Your task to perform on an android device: set default search engine in the chrome app Image 0: 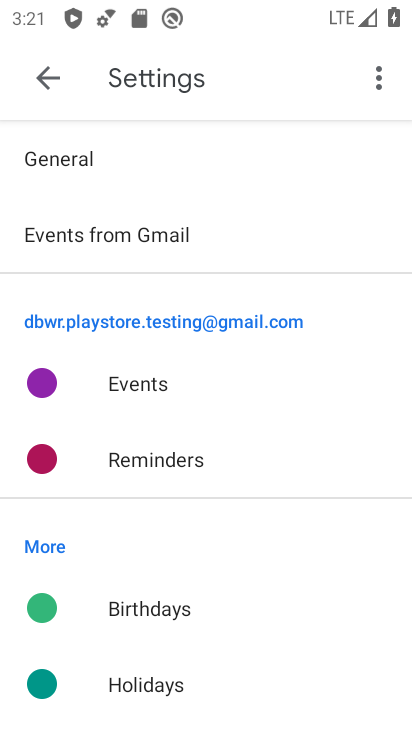
Step 0: press back button
Your task to perform on an android device: set default search engine in the chrome app Image 1: 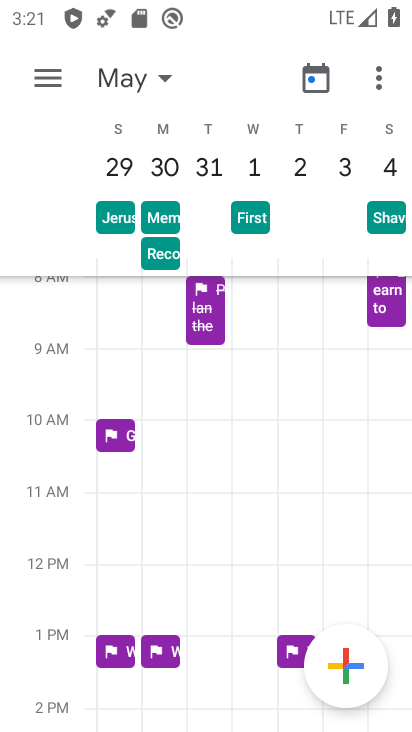
Step 1: press back button
Your task to perform on an android device: set default search engine in the chrome app Image 2: 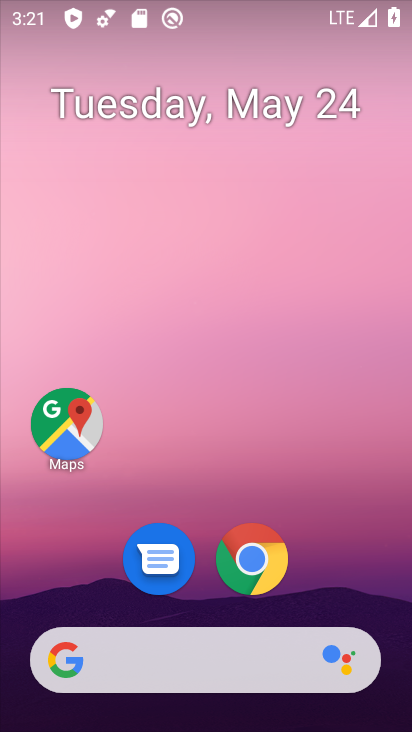
Step 2: click (255, 562)
Your task to perform on an android device: set default search engine in the chrome app Image 3: 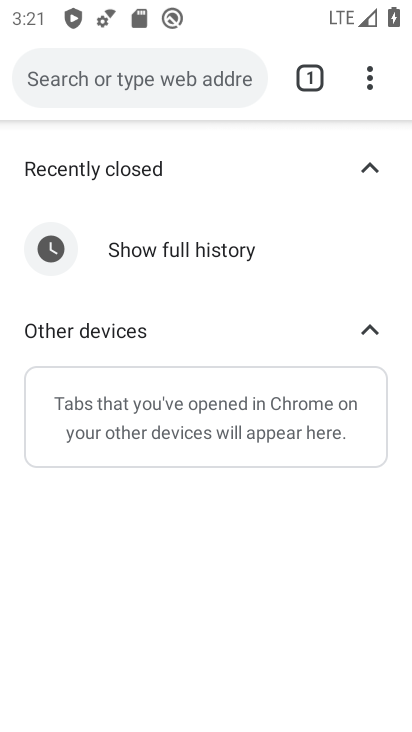
Step 3: click (371, 75)
Your task to perform on an android device: set default search engine in the chrome app Image 4: 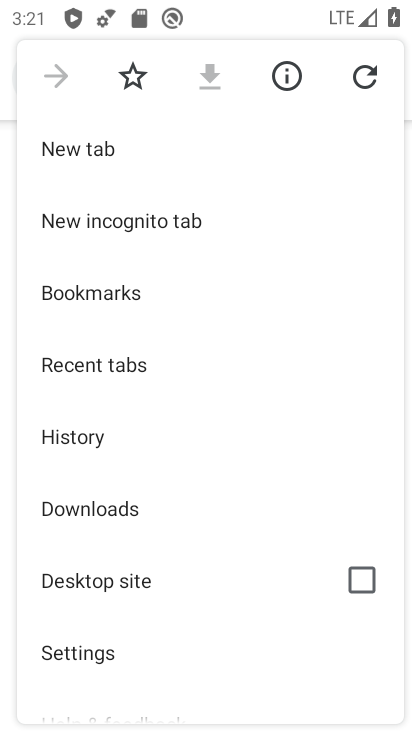
Step 4: click (88, 650)
Your task to perform on an android device: set default search engine in the chrome app Image 5: 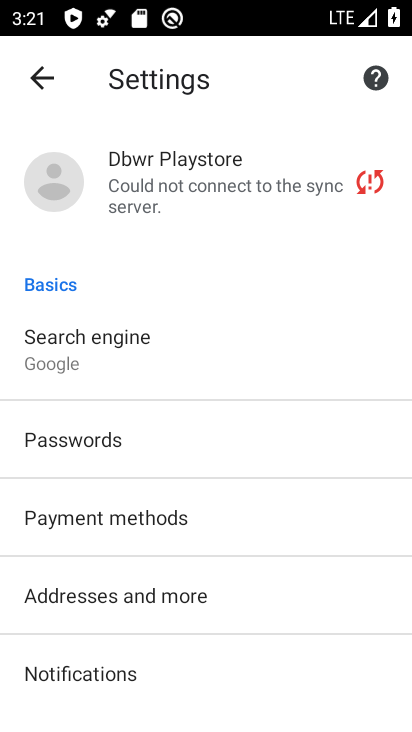
Step 5: click (93, 337)
Your task to perform on an android device: set default search engine in the chrome app Image 6: 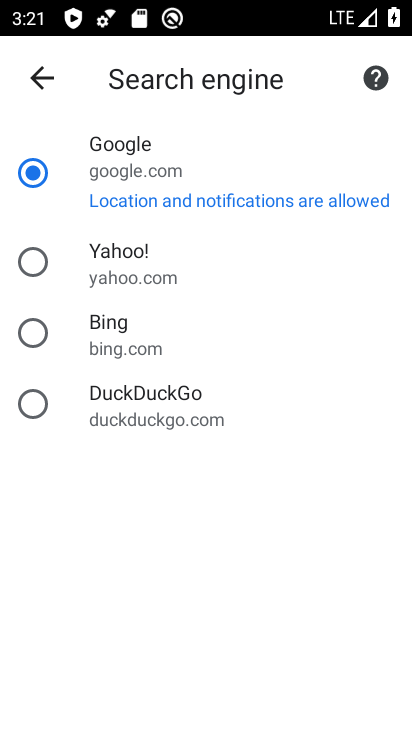
Step 6: click (40, 172)
Your task to perform on an android device: set default search engine in the chrome app Image 7: 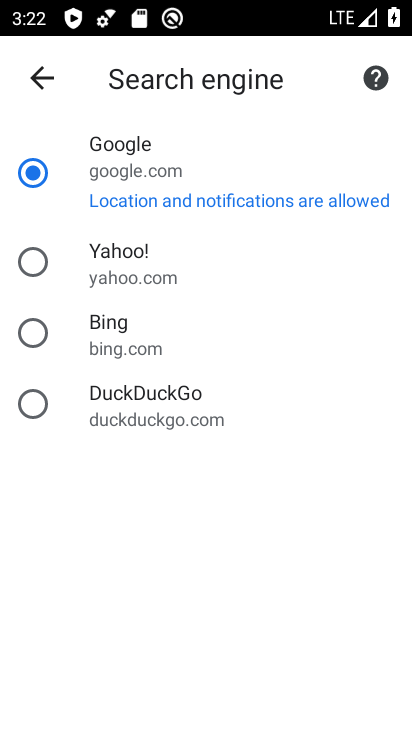
Step 7: task complete